Your task to perform on an android device: Open Google Chrome and click the shortcut for Amazon.com Image 0: 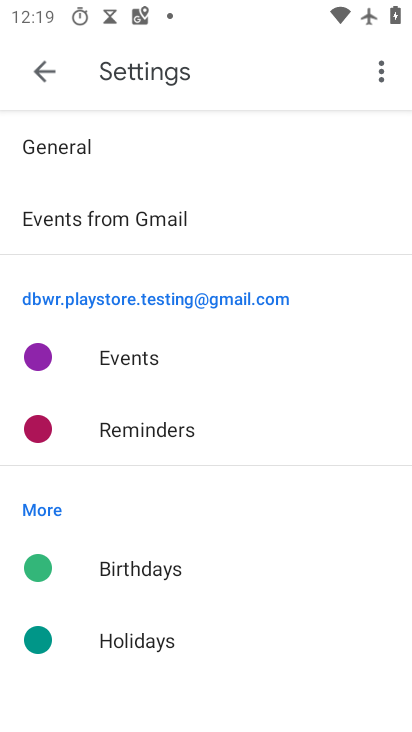
Step 0: press home button
Your task to perform on an android device: Open Google Chrome and click the shortcut for Amazon.com Image 1: 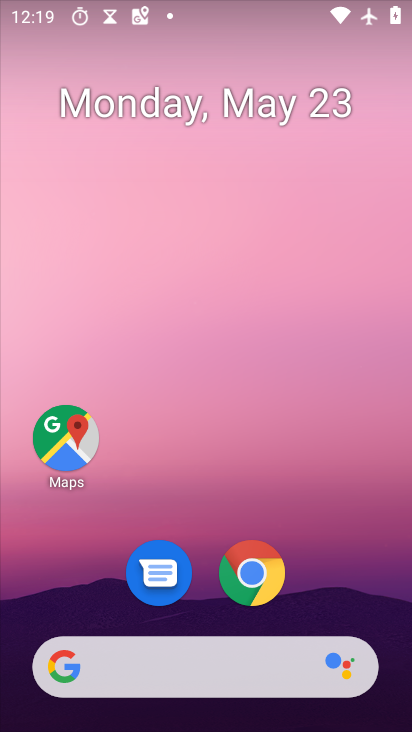
Step 1: click (244, 584)
Your task to perform on an android device: Open Google Chrome and click the shortcut for Amazon.com Image 2: 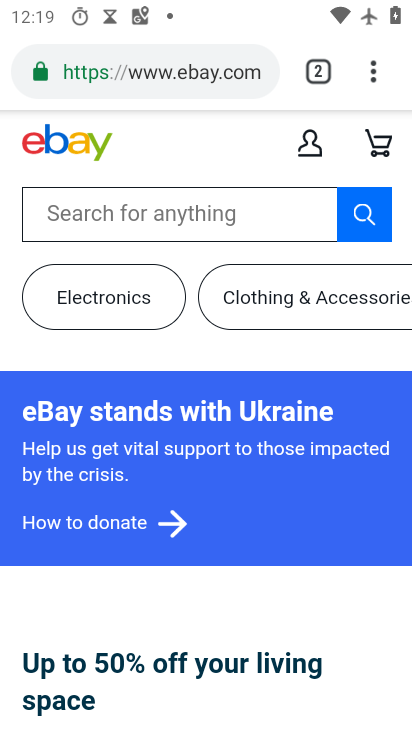
Step 2: drag from (371, 79) to (210, 141)
Your task to perform on an android device: Open Google Chrome and click the shortcut for Amazon.com Image 3: 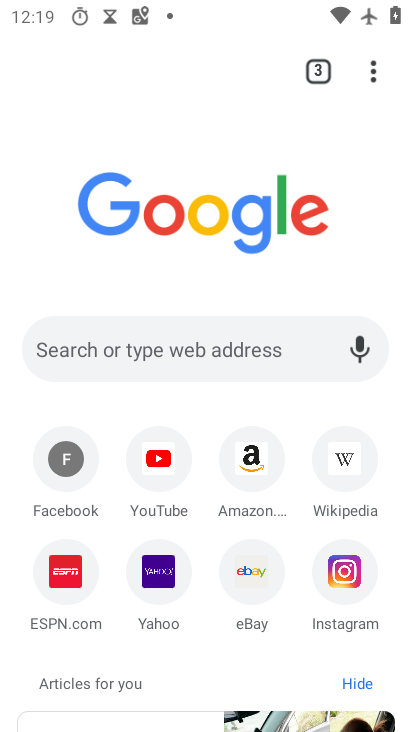
Step 3: click (254, 460)
Your task to perform on an android device: Open Google Chrome and click the shortcut for Amazon.com Image 4: 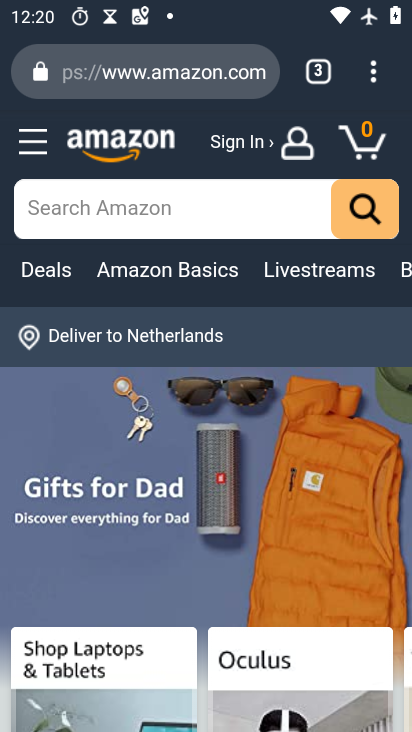
Step 4: task complete